Your task to perform on an android device: turn off sleep mode Image 0: 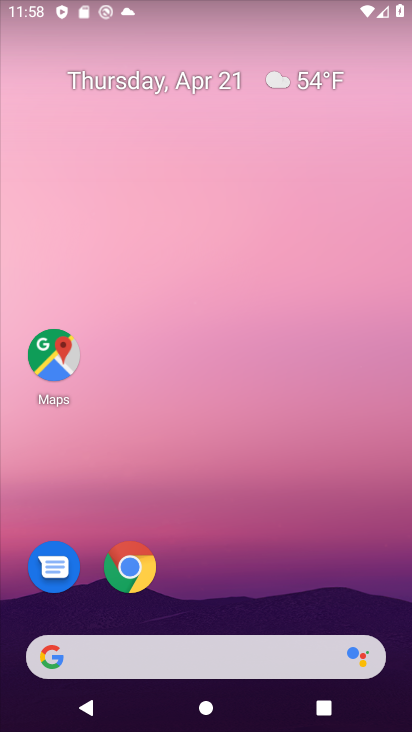
Step 0: drag from (279, 407) to (324, 35)
Your task to perform on an android device: turn off sleep mode Image 1: 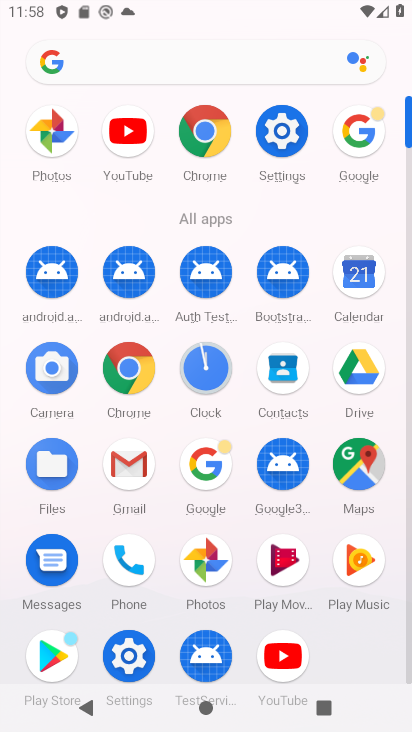
Step 1: click (278, 140)
Your task to perform on an android device: turn off sleep mode Image 2: 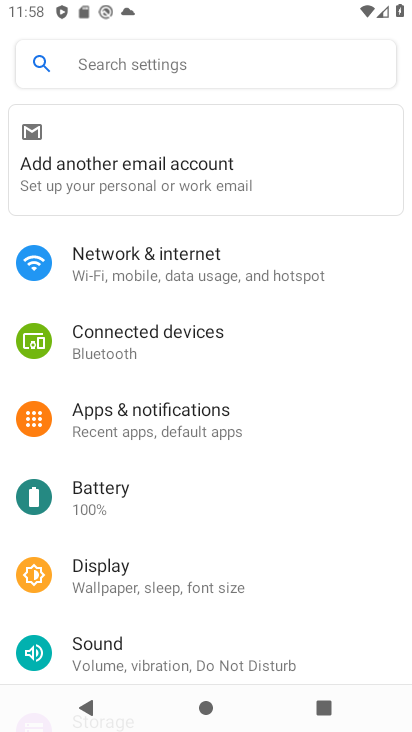
Step 2: click (191, 581)
Your task to perform on an android device: turn off sleep mode Image 3: 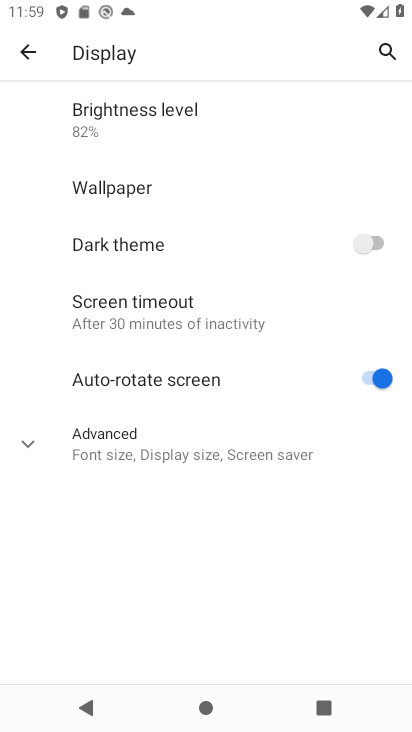
Step 3: click (193, 462)
Your task to perform on an android device: turn off sleep mode Image 4: 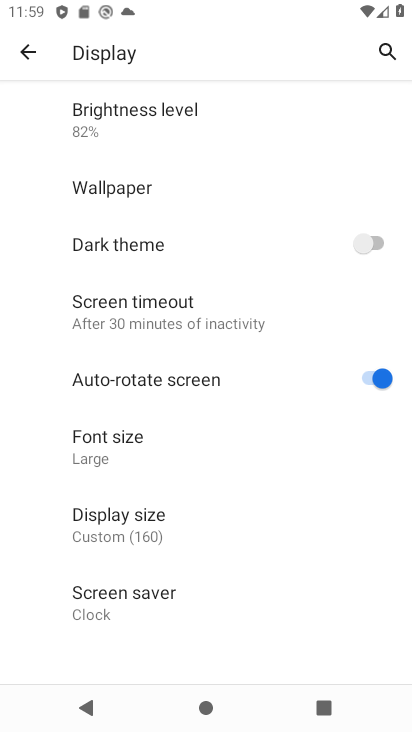
Step 4: task complete